Your task to perform on an android device: check storage Image 0: 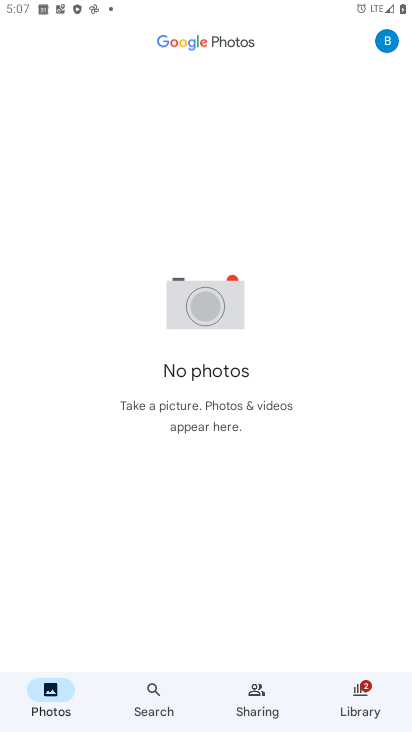
Step 0: press home button
Your task to perform on an android device: check storage Image 1: 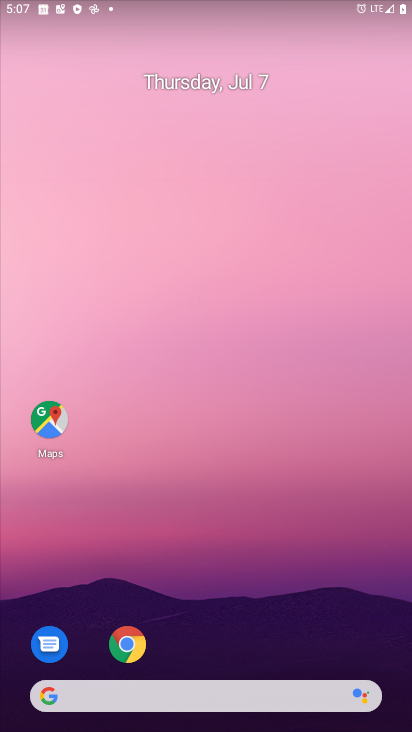
Step 1: drag from (220, 625) to (214, 159)
Your task to perform on an android device: check storage Image 2: 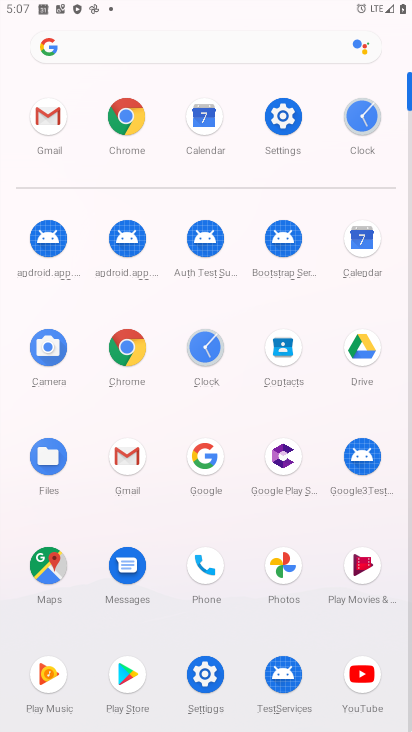
Step 2: click (284, 117)
Your task to perform on an android device: check storage Image 3: 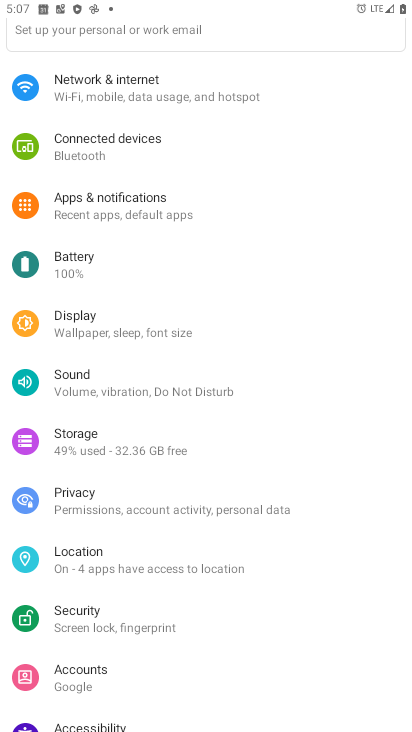
Step 3: click (80, 436)
Your task to perform on an android device: check storage Image 4: 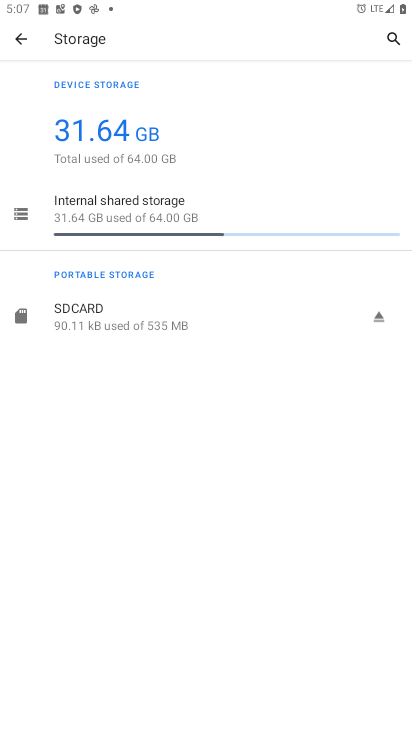
Step 4: task complete